Your task to perform on an android device: Open display settings Image 0: 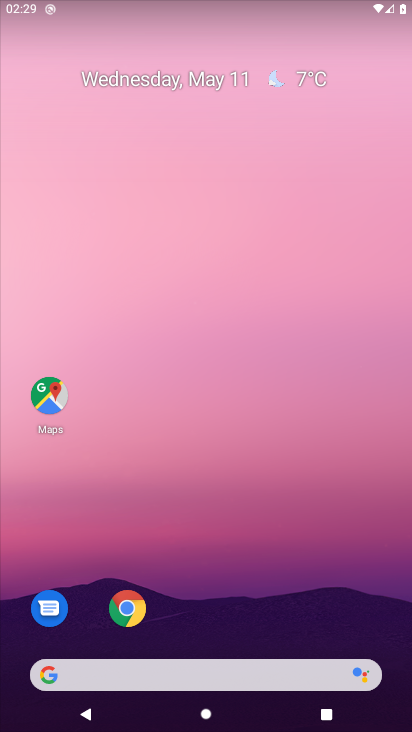
Step 0: drag from (212, 644) to (211, 21)
Your task to perform on an android device: Open display settings Image 1: 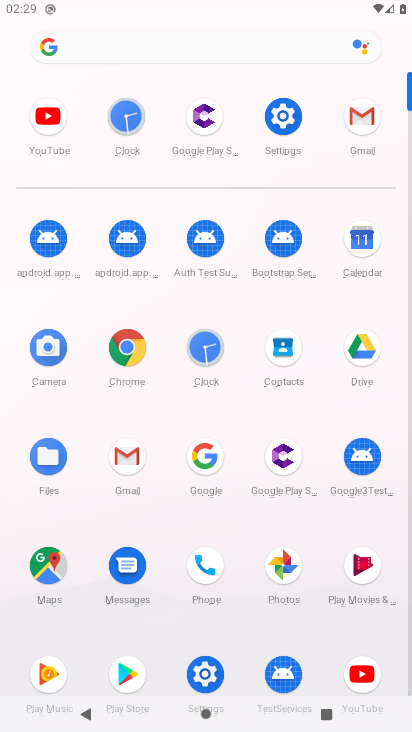
Step 1: click (278, 119)
Your task to perform on an android device: Open display settings Image 2: 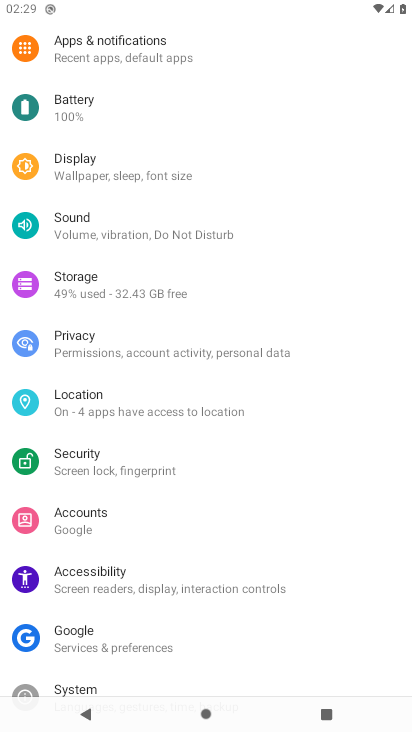
Step 2: click (115, 165)
Your task to perform on an android device: Open display settings Image 3: 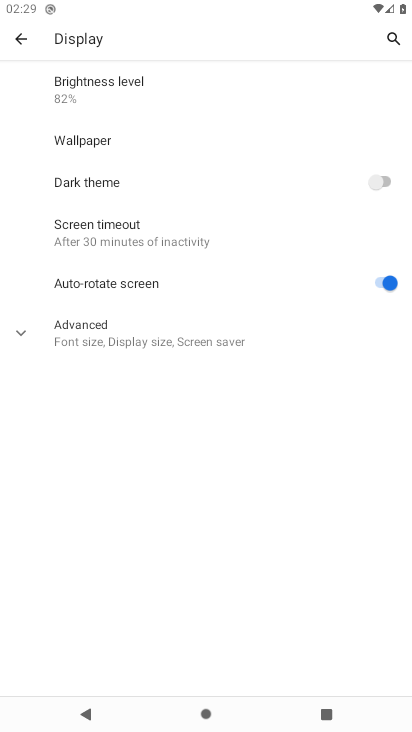
Step 3: click (70, 317)
Your task to perform on an android device: Open display settings Image 4: 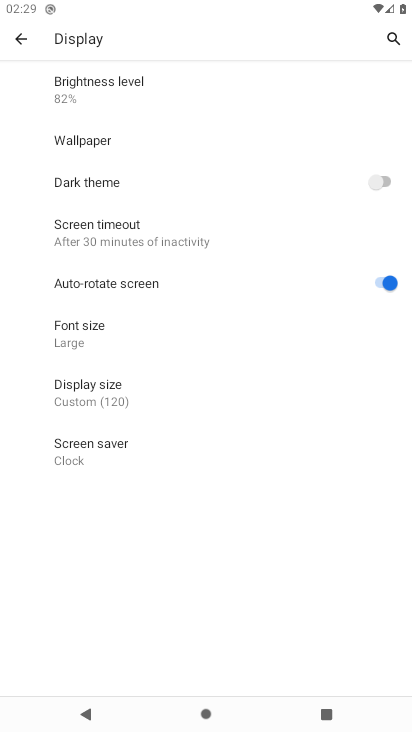
Step 4: task complete